Your task to perform on an android device: Go to network settings Image 0: 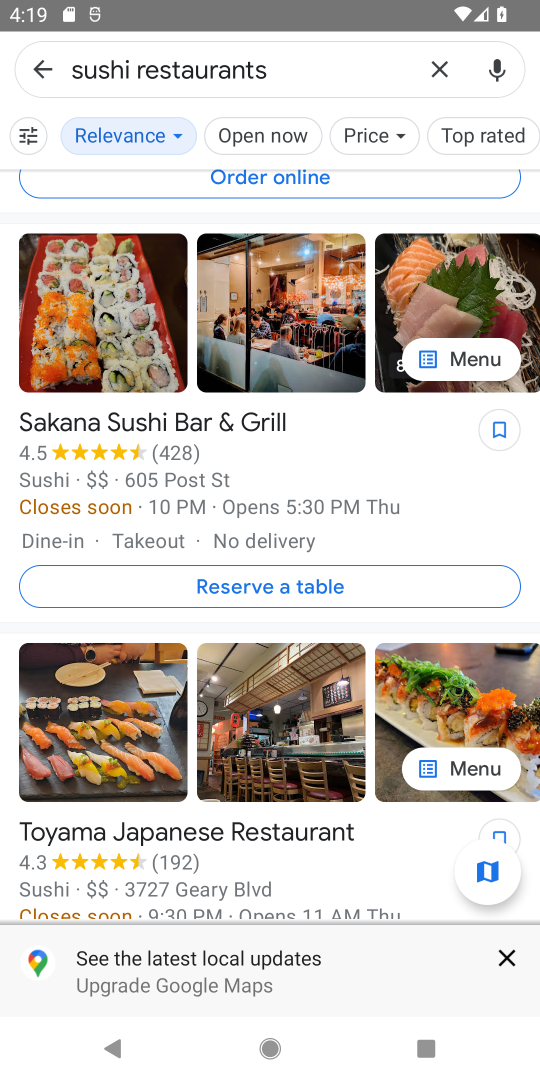
Step 0: press home button
Your task to perform on an android device: Go to network settings Image 1: 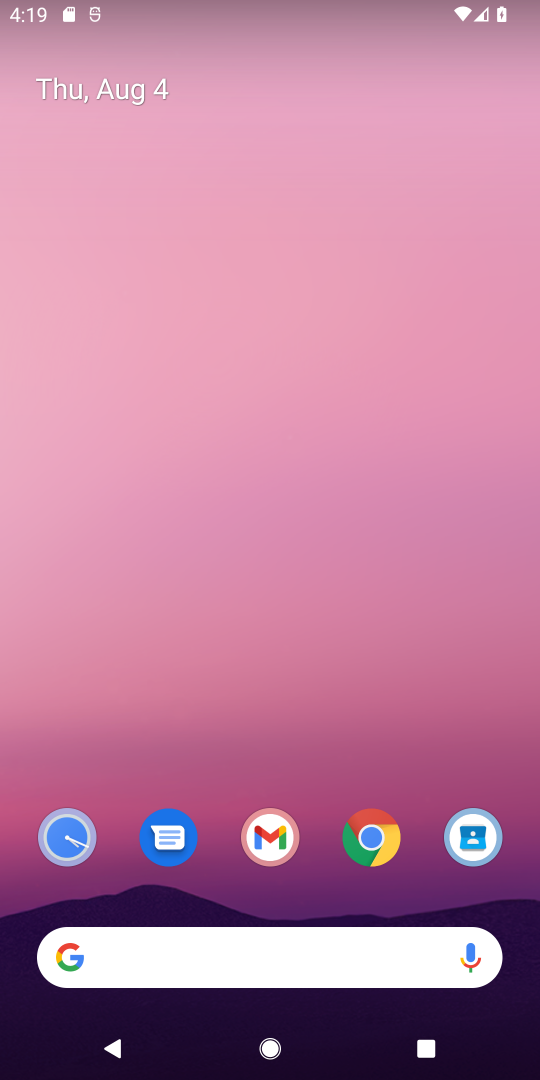
Step 1: drag from (316, 772) to (336, 20)
Your task to perform on an android device: Go to network settings Image 2: 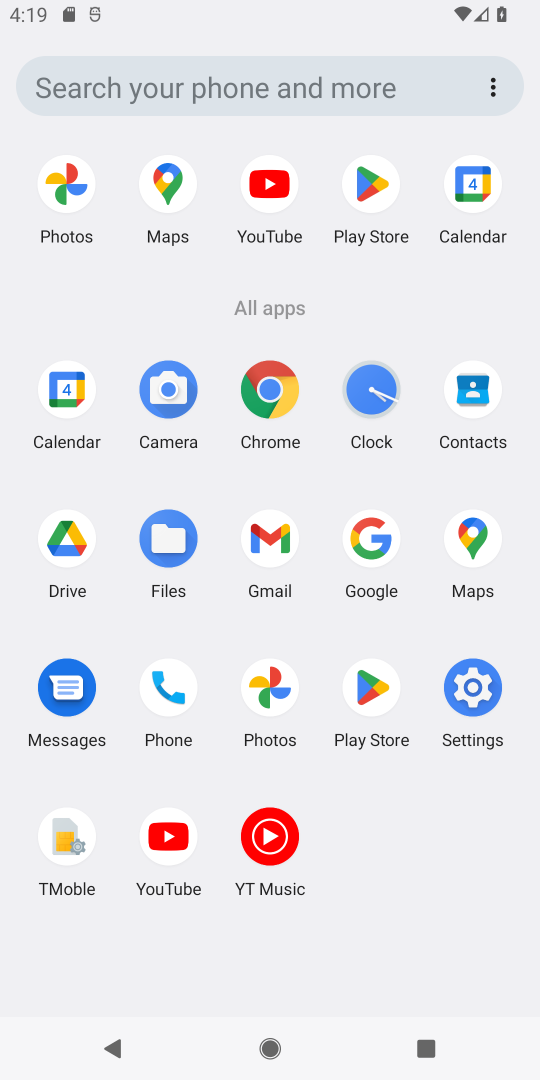
Step 2: click (473, 676)
Your task to perform on an android device: Go to network settings Image 3: 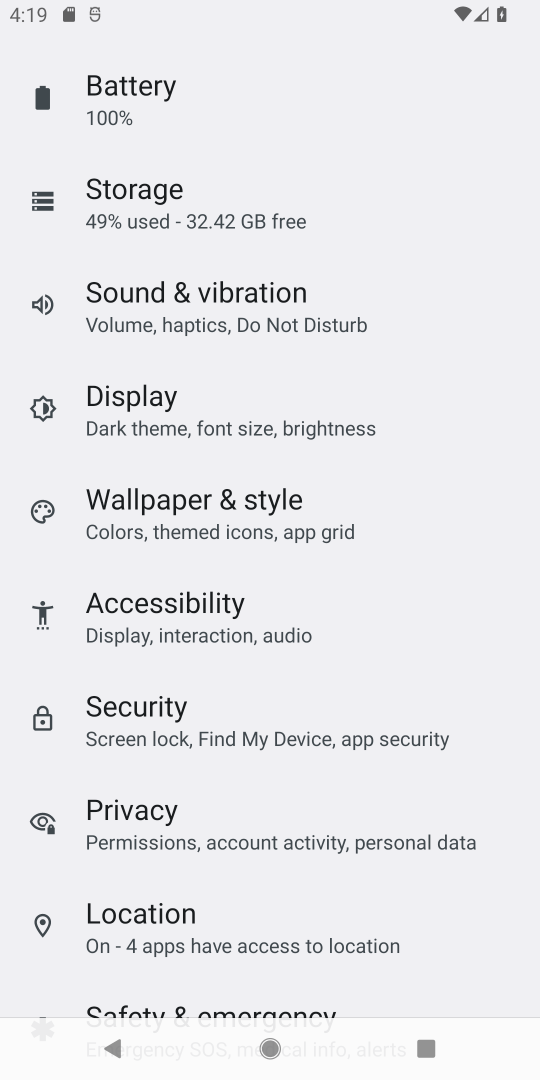
Step 3: drag from (200, 157) to (224, 1079)
Your task to perform on an android device: Go to network settings Image 4: 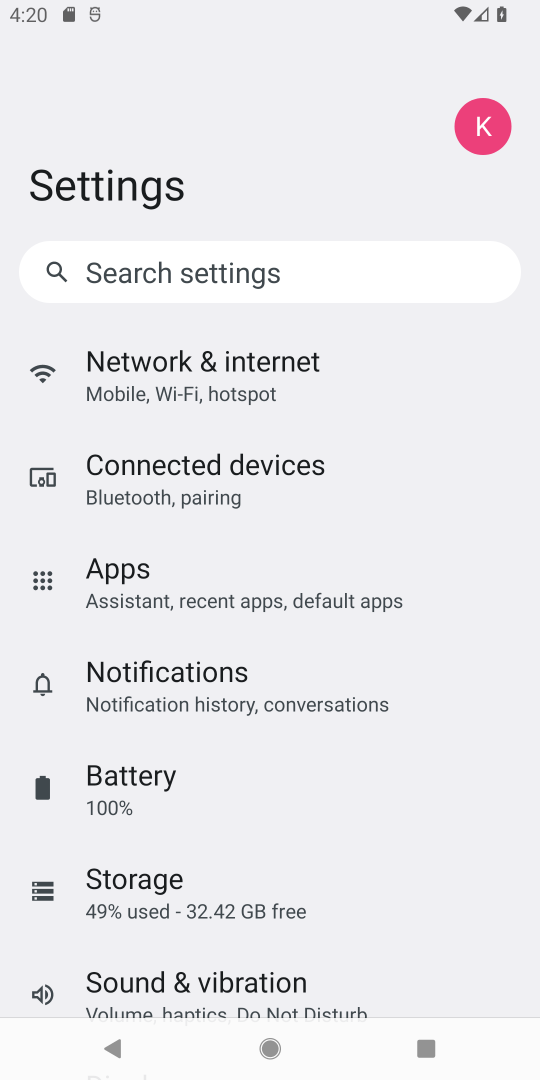
Step 4: click (198, 378)
Your task to perform on an android device: Go to network settings Image 5: 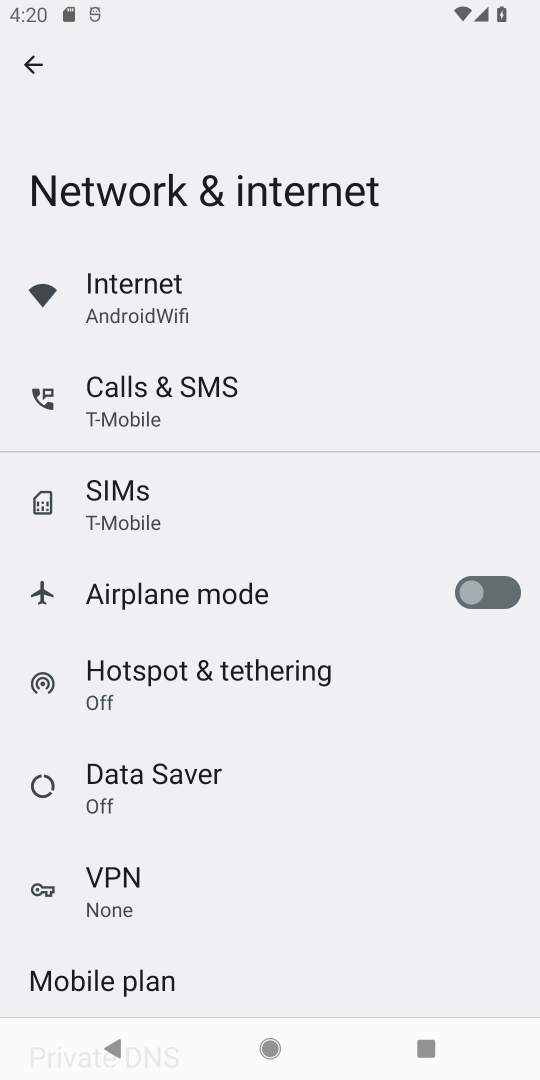
Step 5: task complete